Your task to perform on an android device: turn off data saver in the chrome app Image 0: 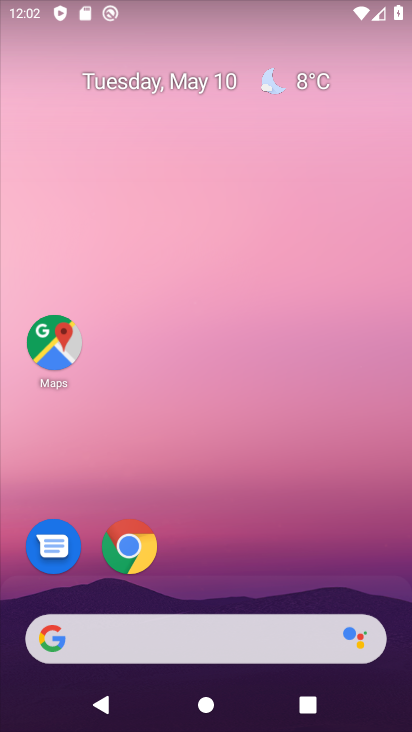
Step 0: drag from (247, 523) to (21, 42)
Your task to perform on an android device: turn off data saver in the chrome app Image 1: 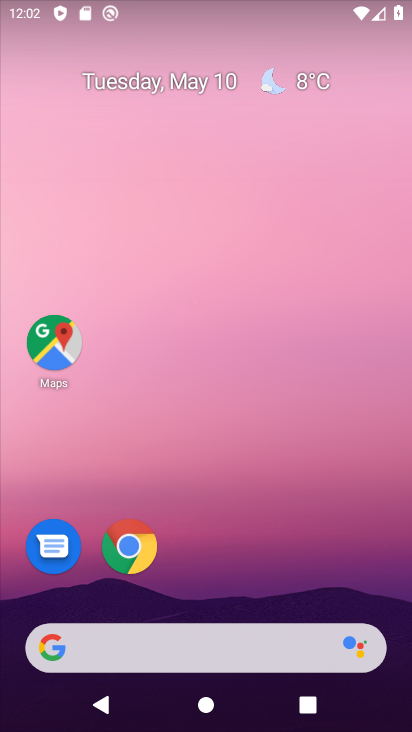
Step 1: drag from (279, 540) to (91, 18)
Your task to perform on an android device: turn off data saver in the chrome app Image 2: 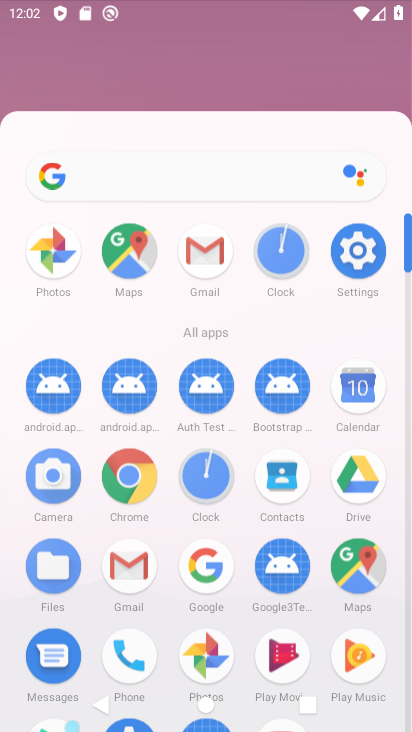
Step 2: drag from (257, 403) to (100, 0)
Your task to perform on an android device: turn off data saver in the chrome app Image 3: 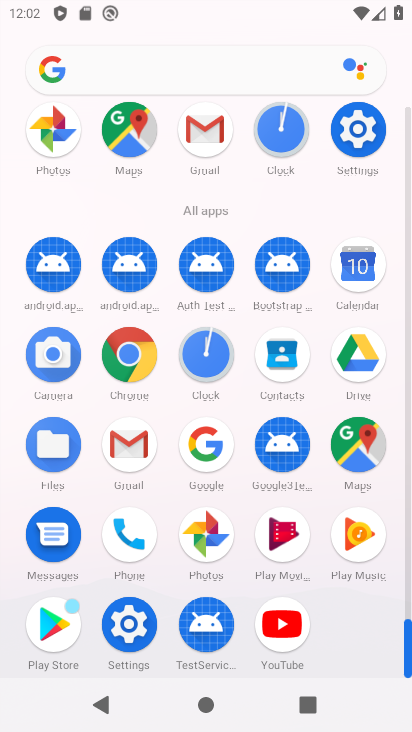
Step 3: click (124, 343)
Your task to perform on an android device: turn off data saver in the chrome app Image 4: 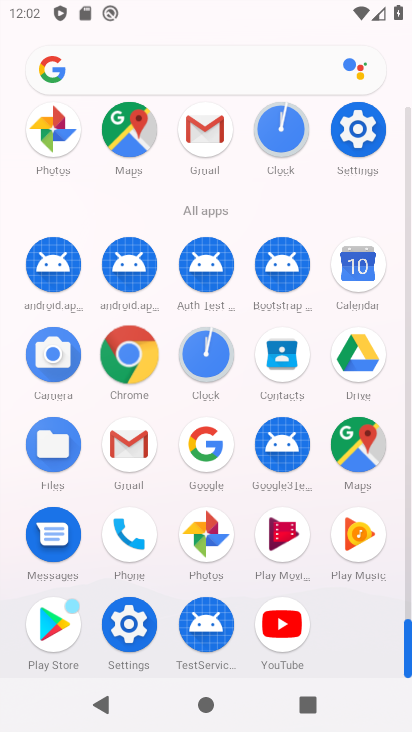
Step 4: click (124, 344)
Your task to perform on an android device: turn off data saver in the chrome app Image 5: 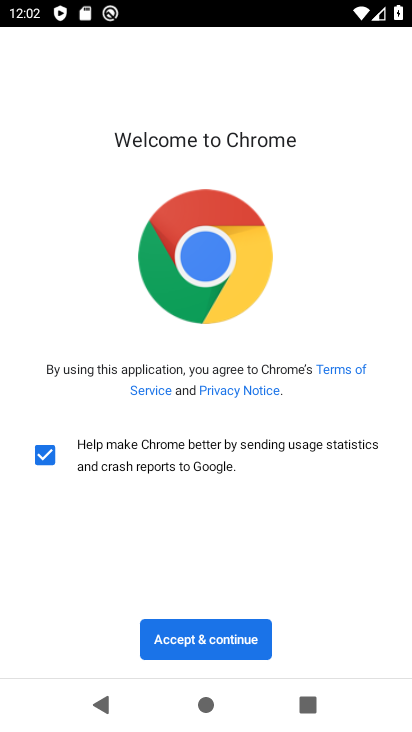
Step 5: click (205, 633)
Your task to perform on an android device: turn off data saver in the chrome app Image 6: 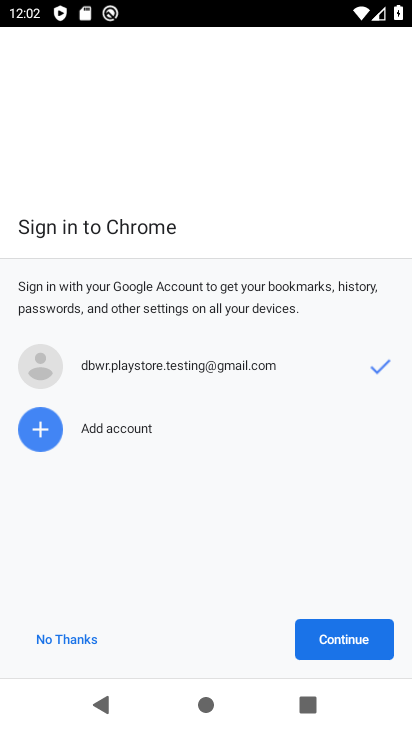
Step 6: click (329, 635)
Your task to perform on an android device: turn off data saver in the chrome app Image 7: 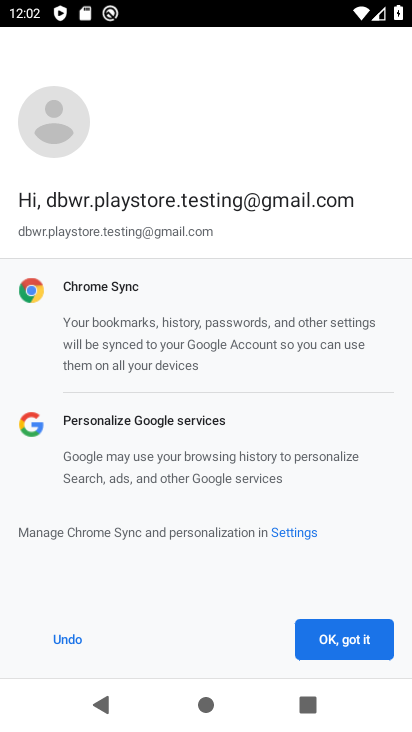
Step 7: click (341, 643)
Your task to perform on an android device: turn off data saver in the chrome app Image 8: 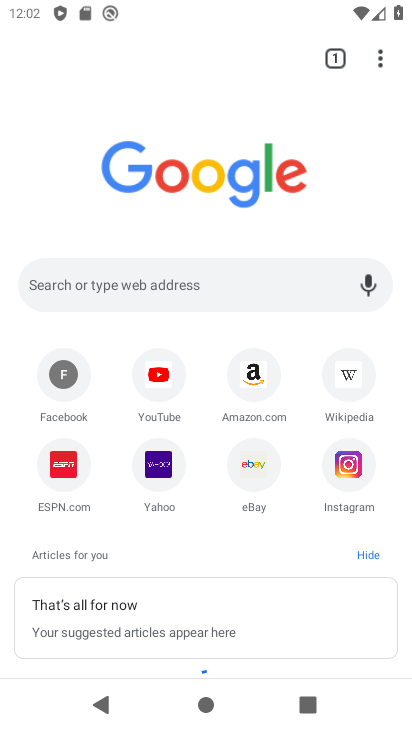
Step 8: click (378, 60)
Your task to perform on an android device: turn off data saver in the chrome app Image 9: 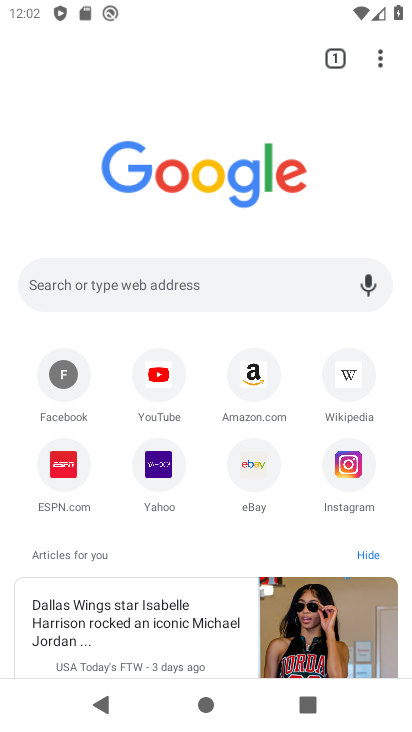
Step 9: drag from (378, 60) to (164, 494)
Your task to perform on an android device: turn off data saver in the chrome app Image 10: 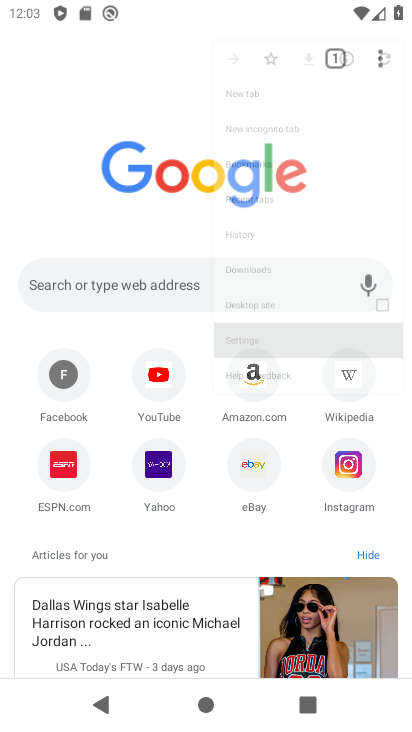
Step 10: click (164, 494)
Your task to perform on an android device: turn off data saver in the chrome app Image 11: 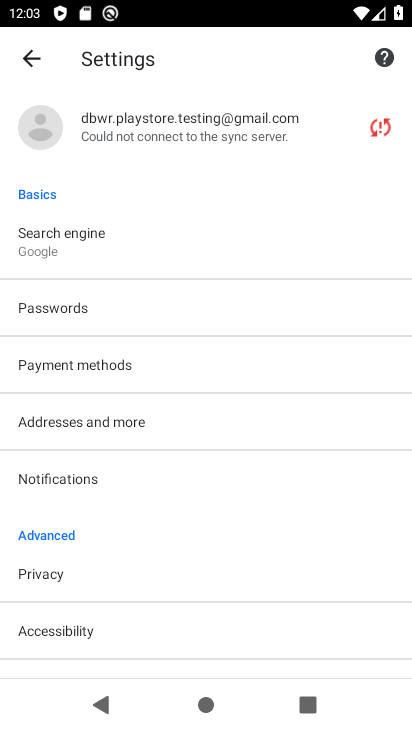
Step 11: drag from (139, 525) to (121, 325)
Your task to perform on an android device: turn off data saver in the chrome app Image 12: 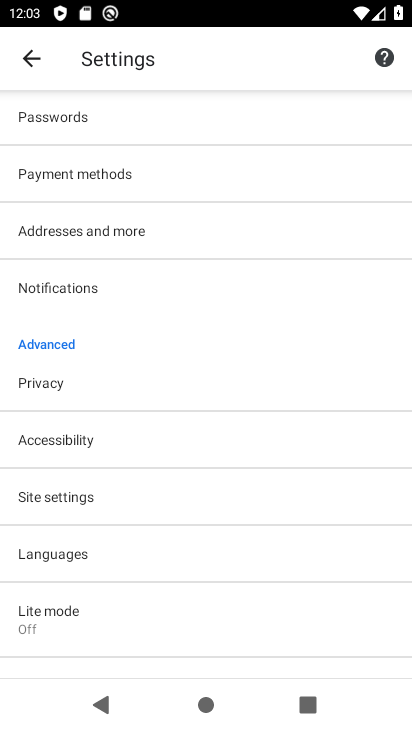
Step 12: click (55, 606)
Your task to perform on an android device: turn off data saver in the chrome app Image 13: 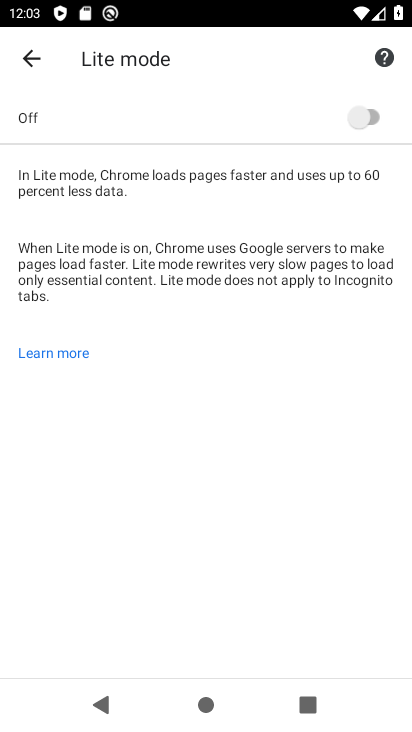
Step 13: task complete